Your task to perform on an android device: Open maps Image 0: 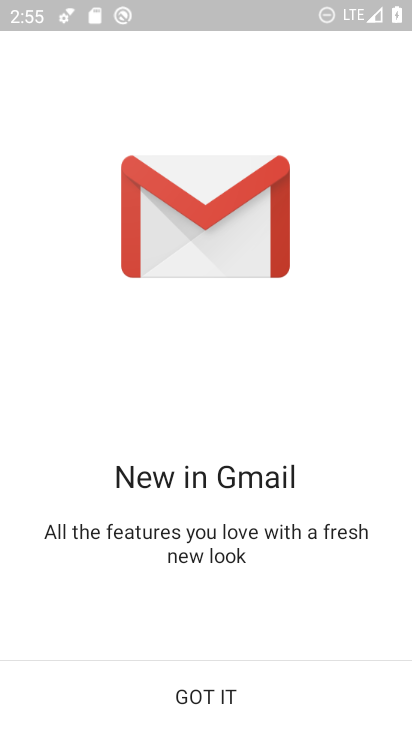
Step 0: press home button
Your task to perform on an android device: Open maps Image 1: 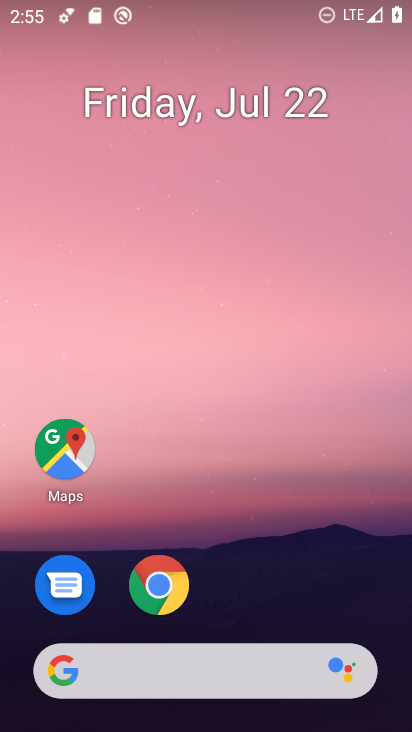
Step 1: click (49, 452)
Your task to perform on an android device: Open maps Image 2: 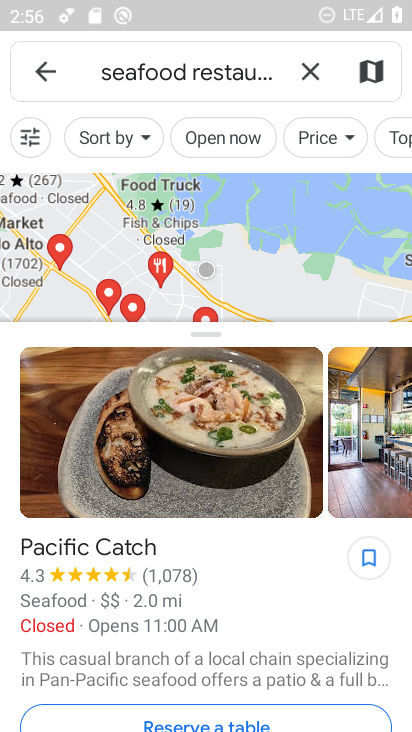
Step 2: click (311, 67)
Your task to perform on an android device: Open maps Image 3: 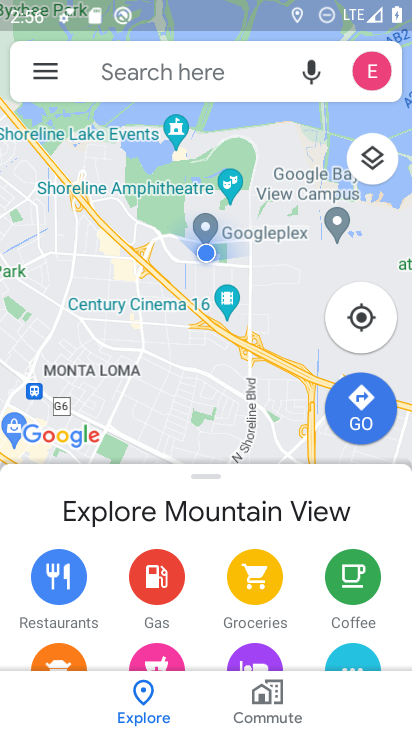
Step 3: task complete